Your task to perform on an android device: set the stopwatch Image 0: 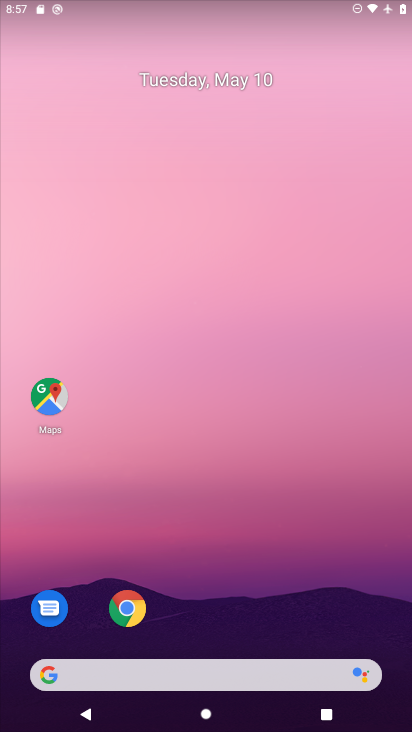
Step 0: drag from (249, 503) to (269, 281)
Your task to perform on an android device: set the stopwatch Image 1: 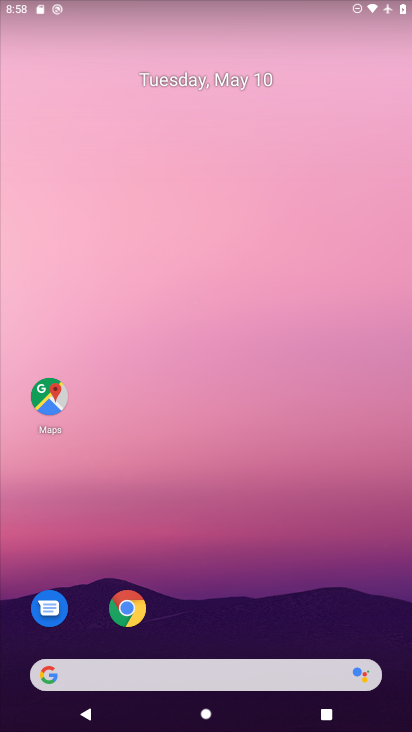
Step 1: drag from (216, 611) to (266, 304)
Your task to perform on an android device: set the stopwatch Image 2: 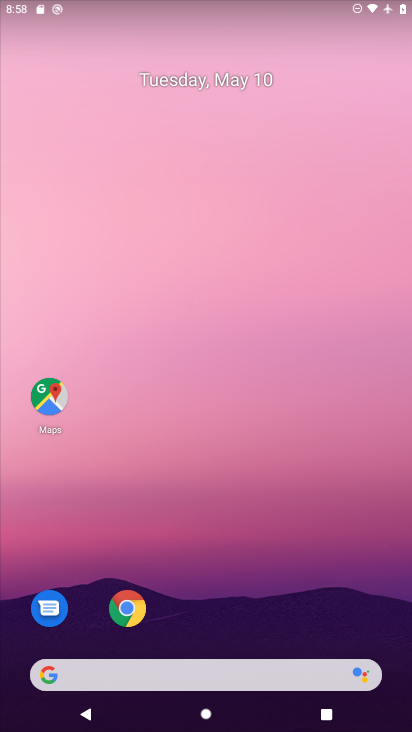
Step 2: drag from (284, 610) to (294, 273)
Your task to perform on an android device: set the stopwatch Image 3: 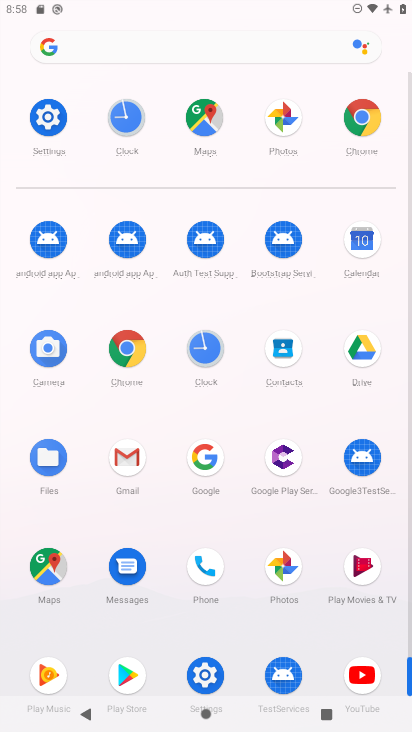
Step 3: click (195, 350)
Your task to perform on an android device: set the stopwatch Image 4: 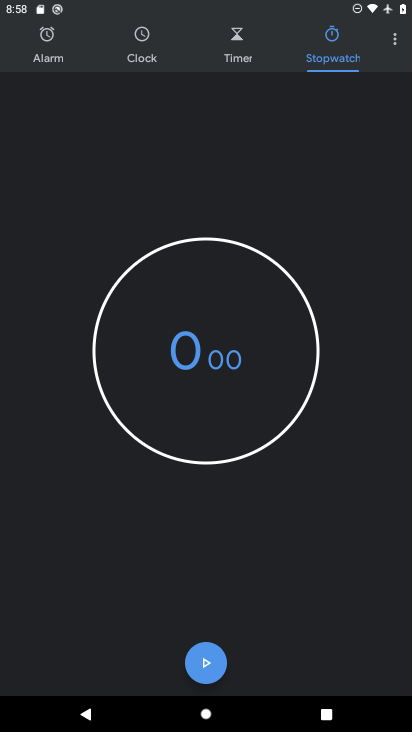
Step 4: task complete